Your task to perform on an android device: open app "Google Keep" (install if not already installed) Image 0: 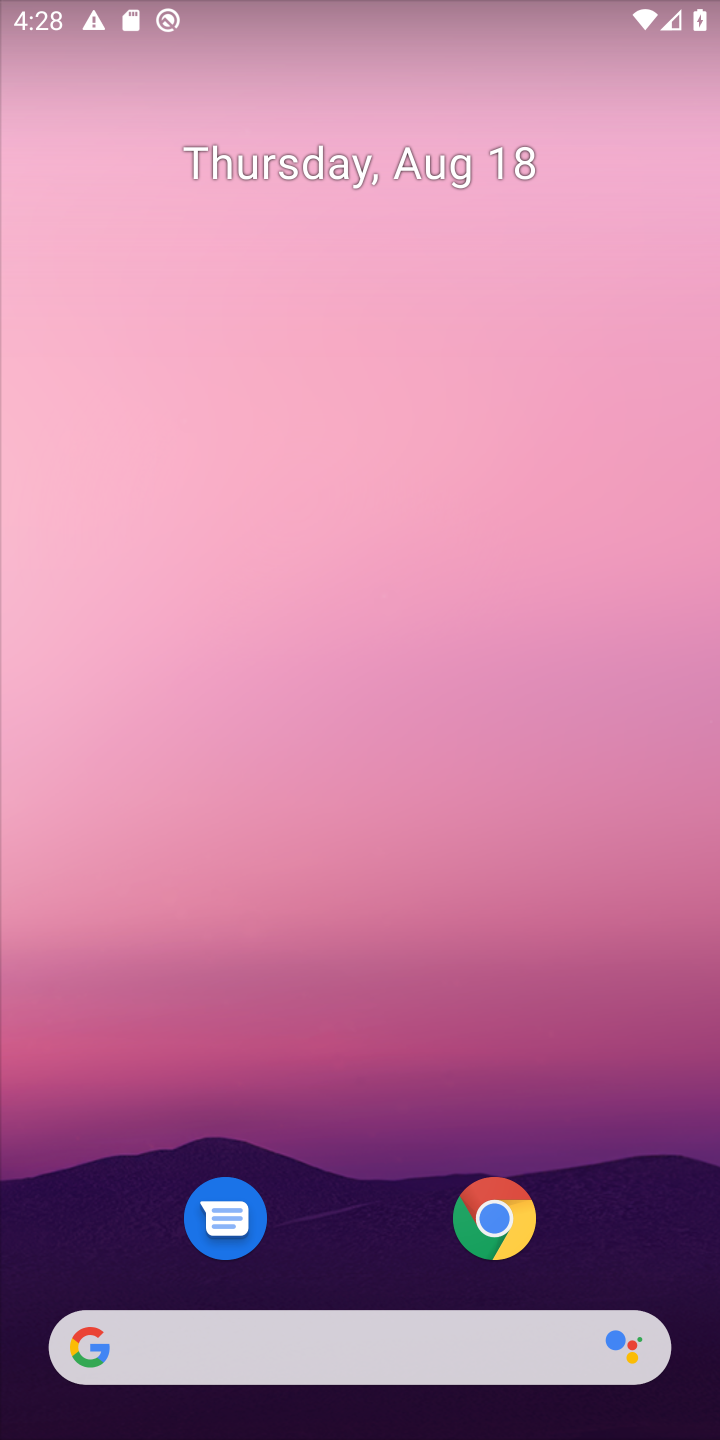
Step 0: drag from (337, 1145) to (342, 364)
Your task to perform on an android device: open app "Google Keep" (install if not already installed) Image 1: 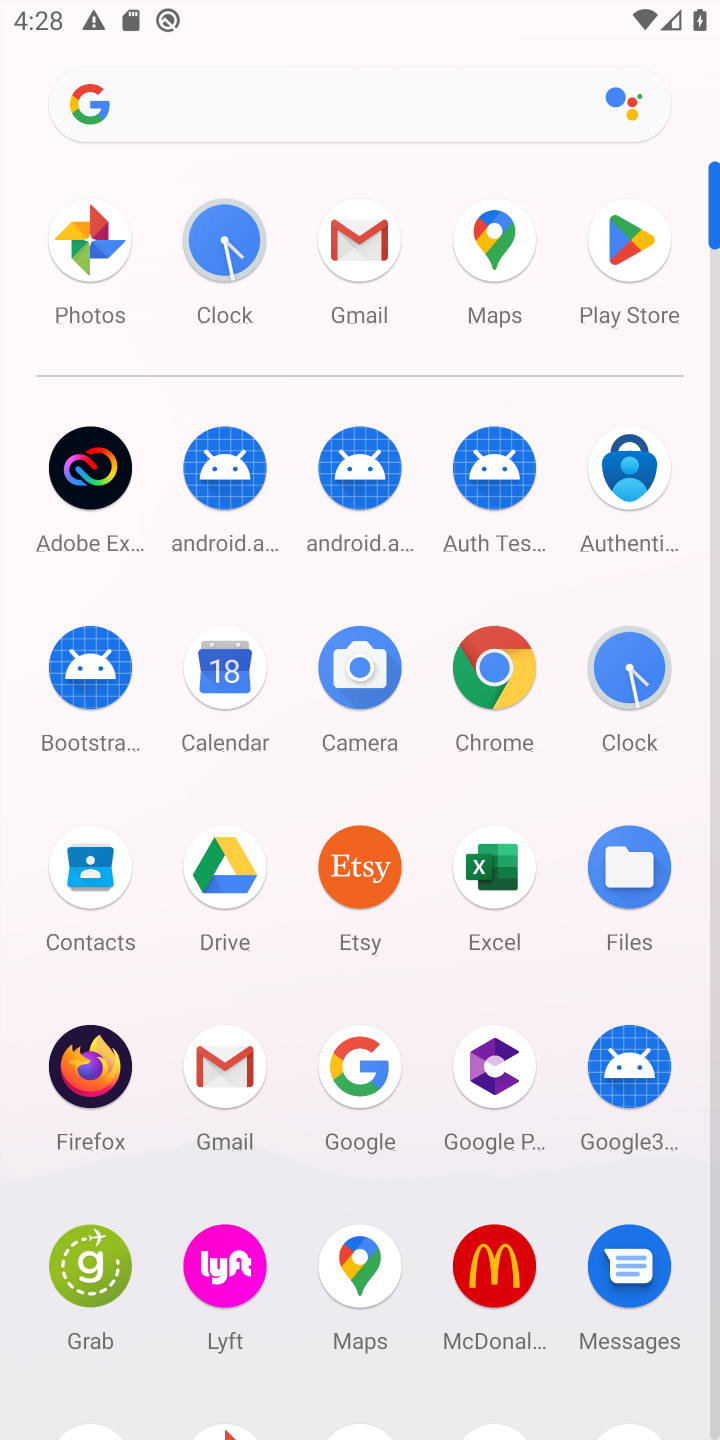
Step 1: click (615, 263)
Your task to perform on an android device: open app "Google Keep" (install if not already installed) Image 2: 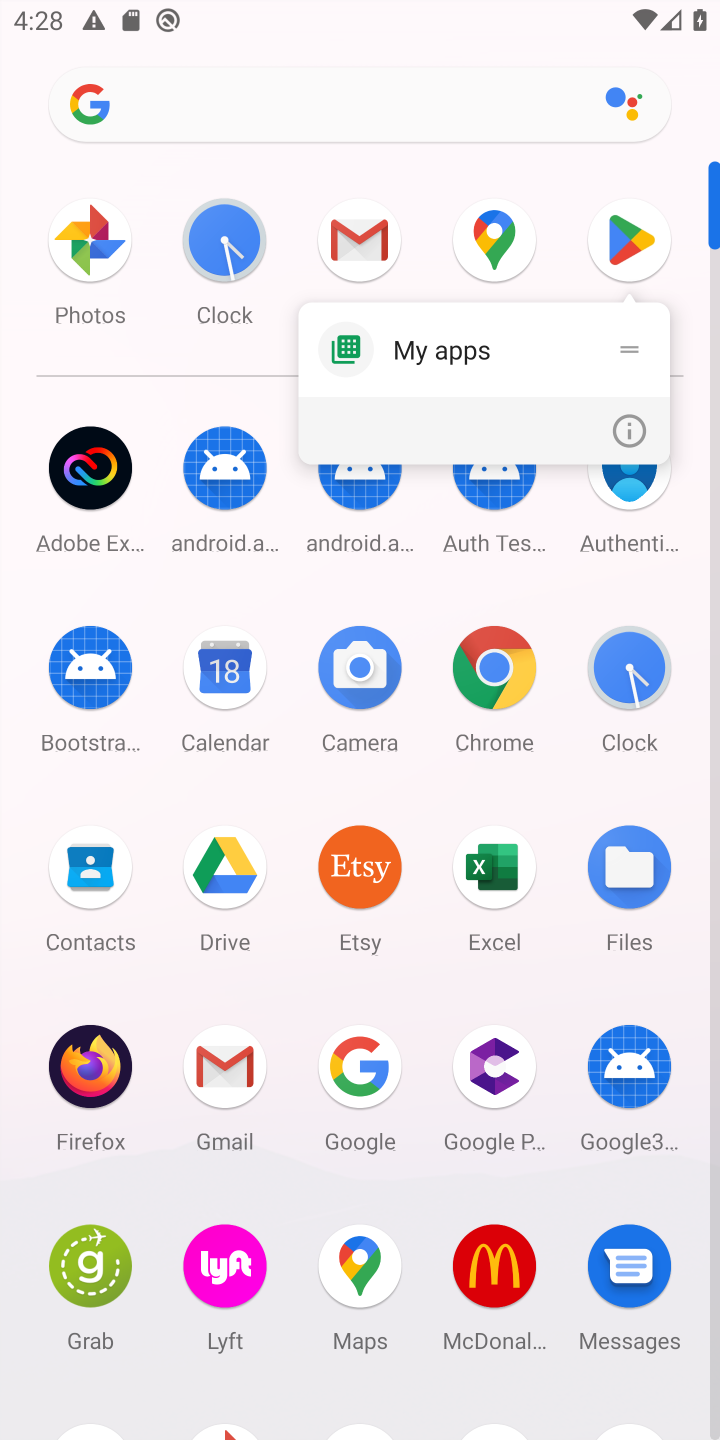
Step 2: click (614, 249)
Your task to perform on an android device: open app "Google Keep" (install if not already installed) Image 3: 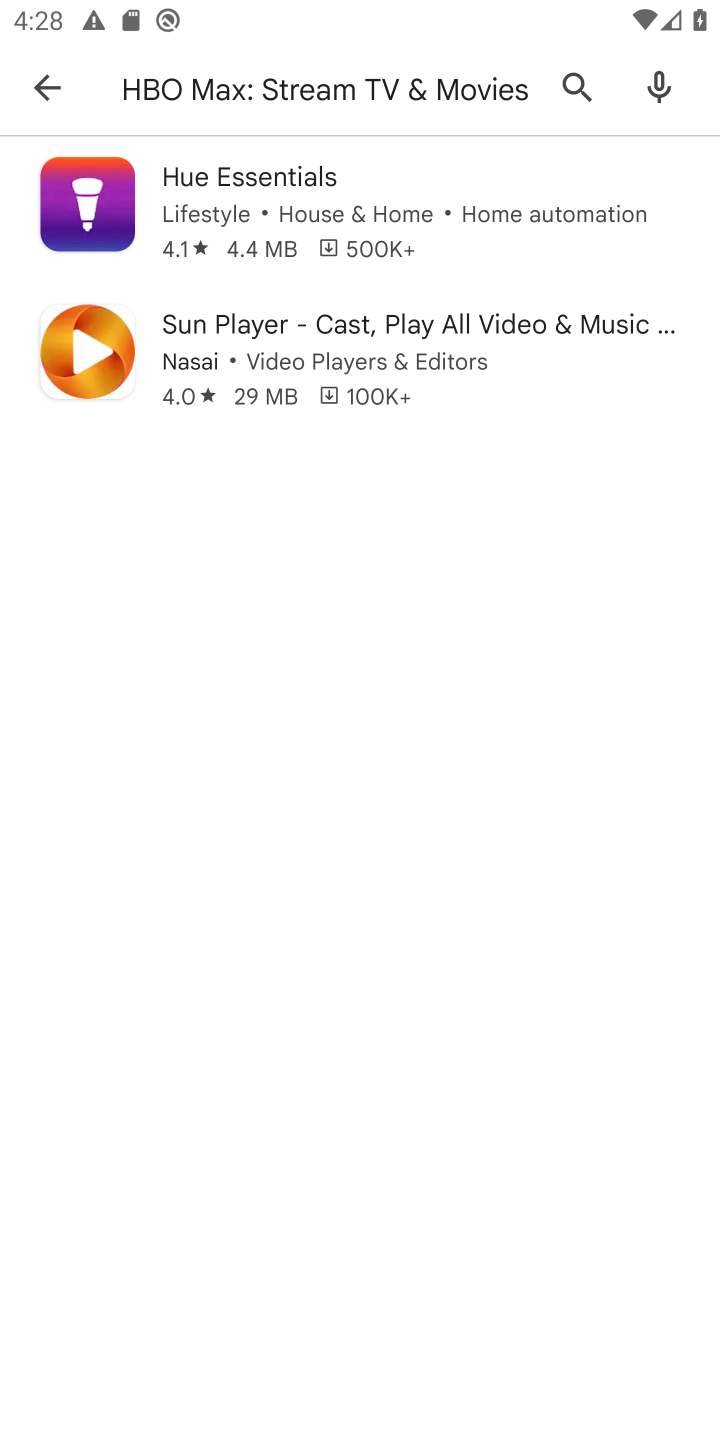
Step 3: click (591, 90)
Your task to perform on an android device: open app "Google Keep" (install if not already installed) Image 4: 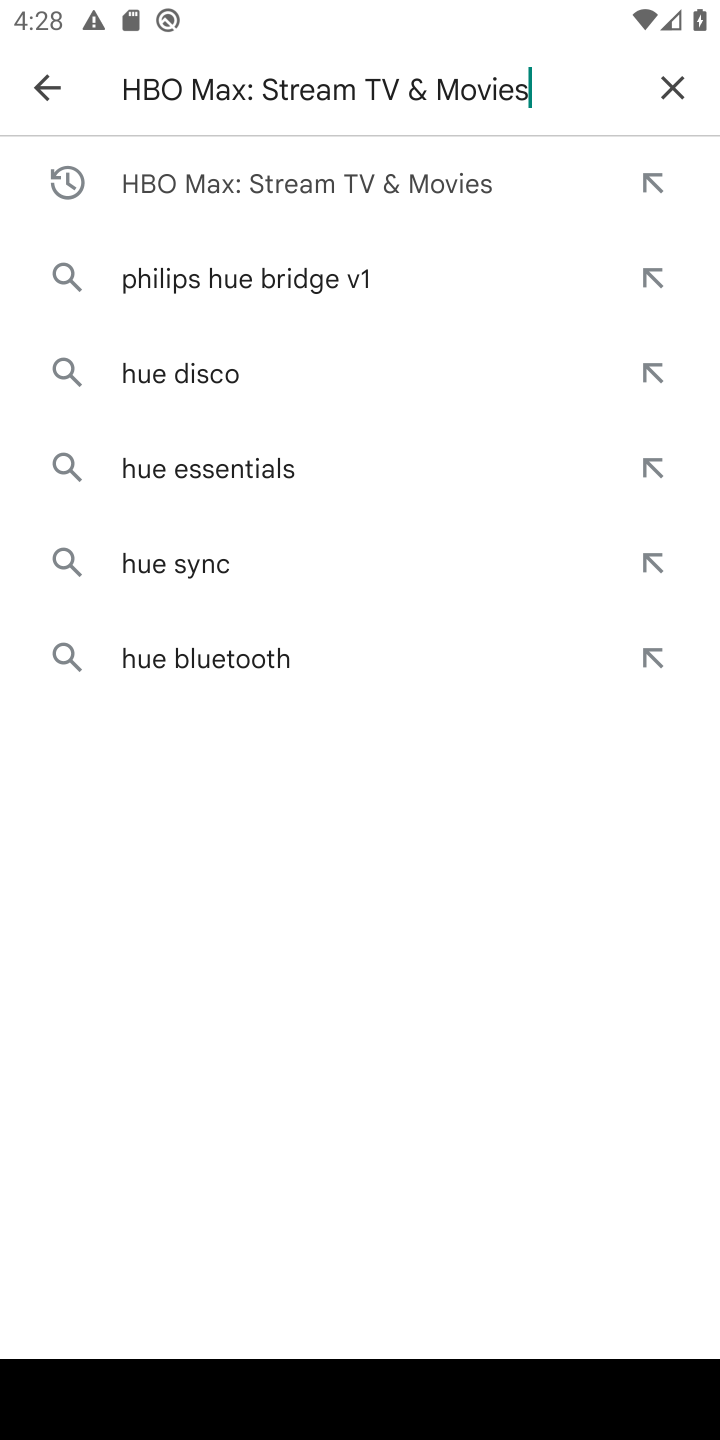
Step 4: click (677, 95)
Your task to perform on an android device: open app "Google Keep" (install if not already installed) Image 5: 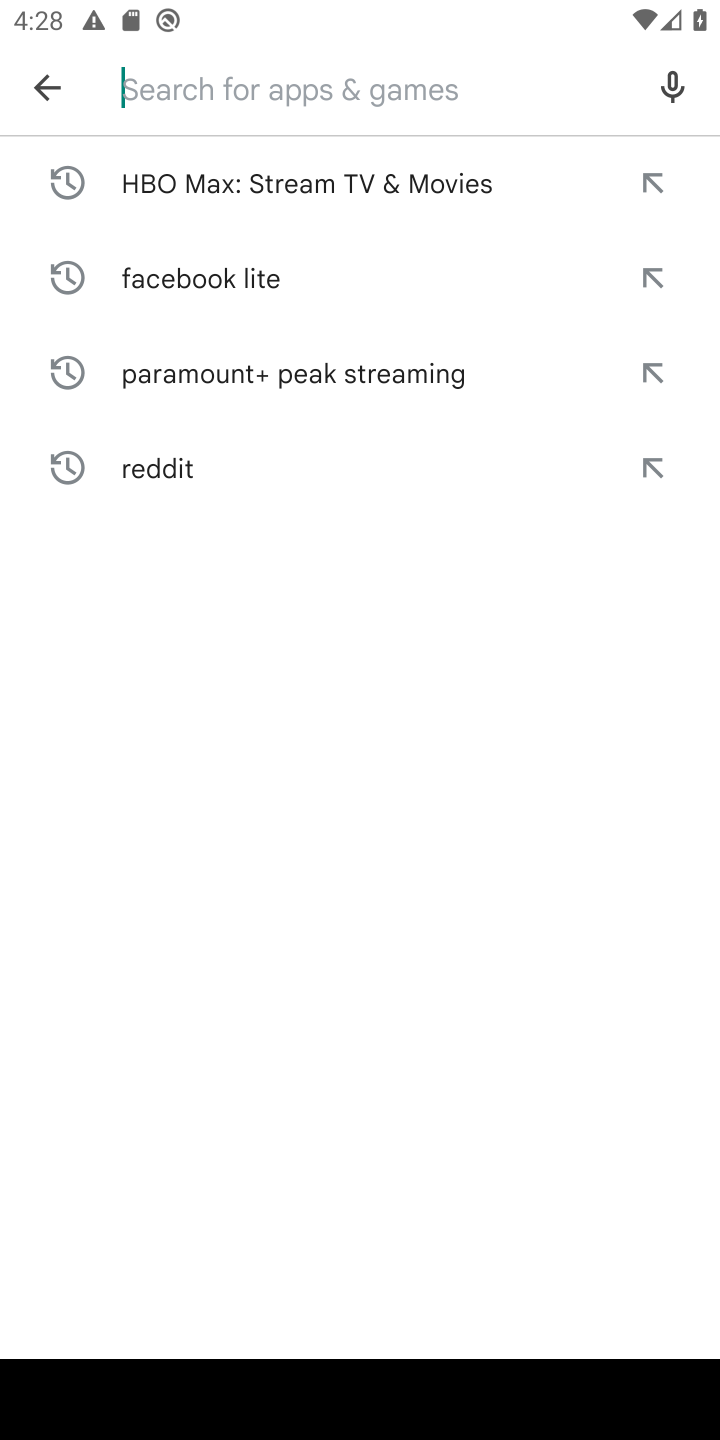
Step 5: type "Google Keep"
Your task to perform on an android device: open app "Google Keep" (install if not already installed) Image 6: 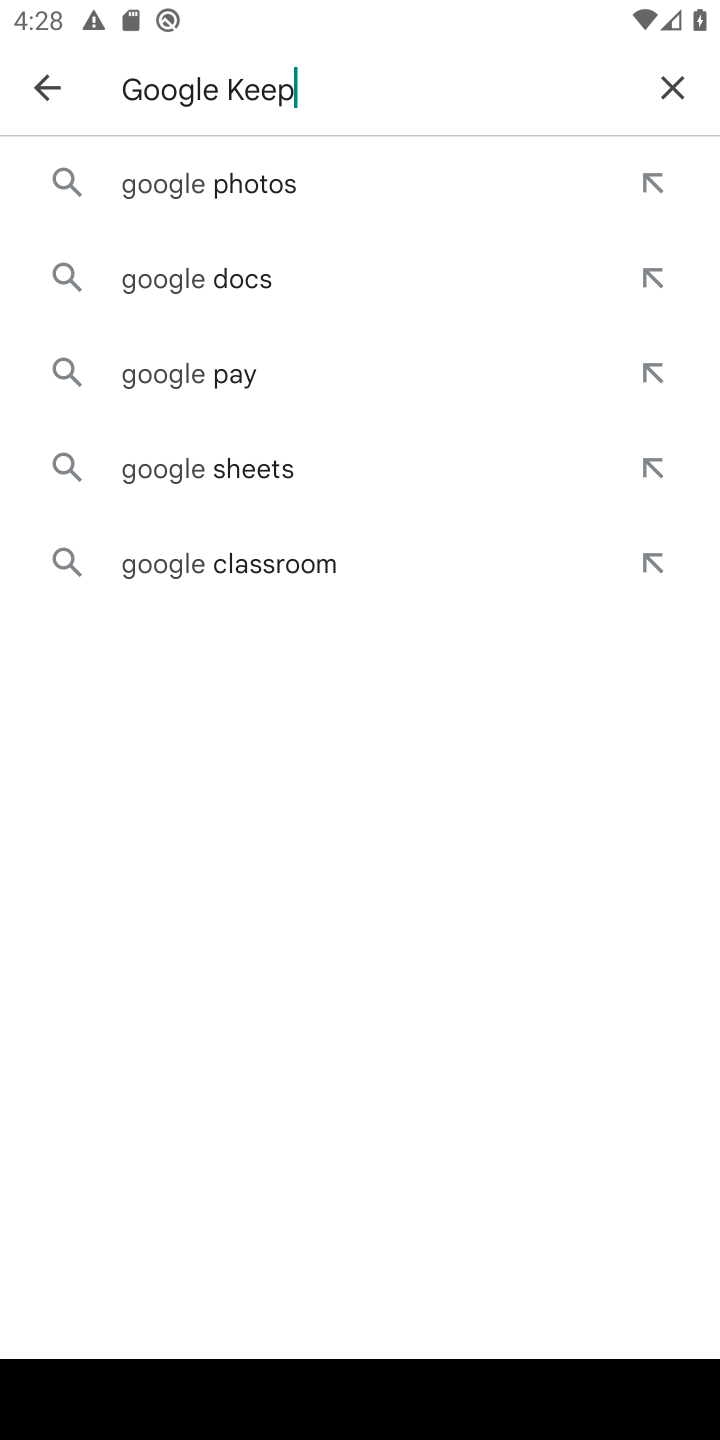
Step 6: type ""
Your task to perform on an android device: open app "Google Keep" (install if not already installed) Image 7: 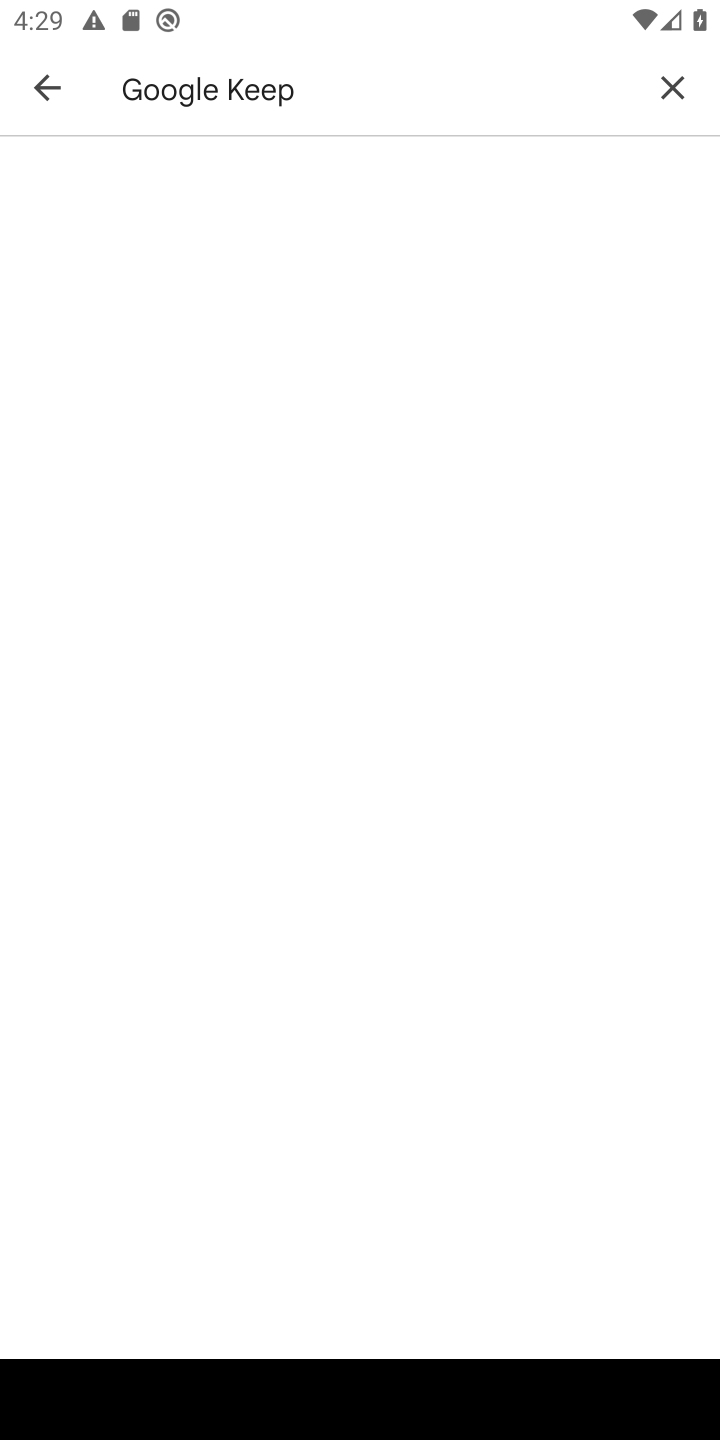
Step 7: task complete